Your task to perform on an android device: Toggle the flashlight Image 0: 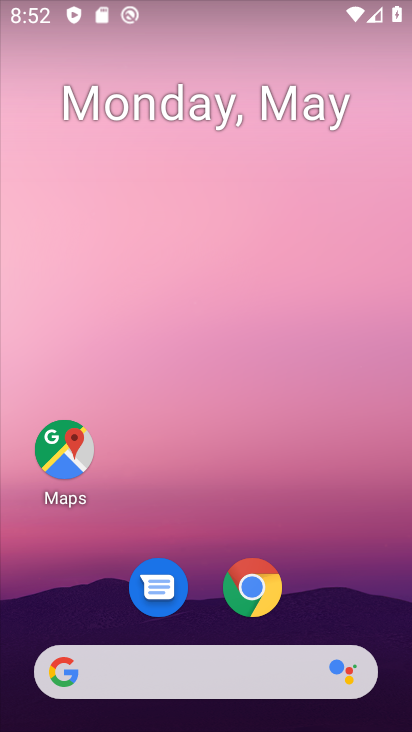
Step 0: drag from (217, 639) to (70, 22)
Your task to perform on an android device: Toggle the flashlight Image 1: 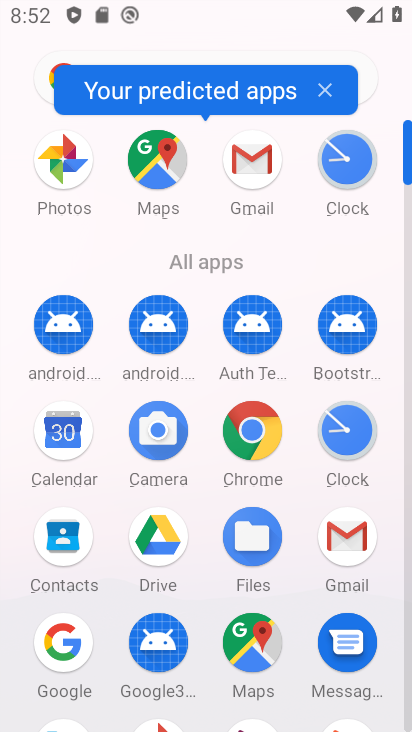
Step 1: drag from (204, 612) to (158, 93)
Your task to perform on an android device: Toggle the flashlight Image 2: 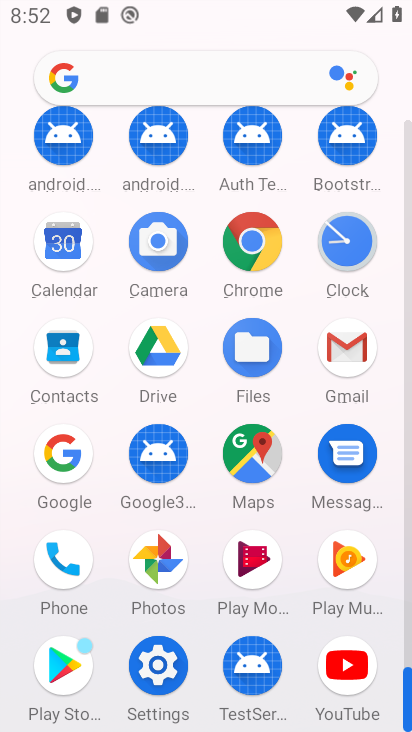
Step 2: click (180, 661)
Your task to perform on an android device: Toggle the flashlight Image 3: 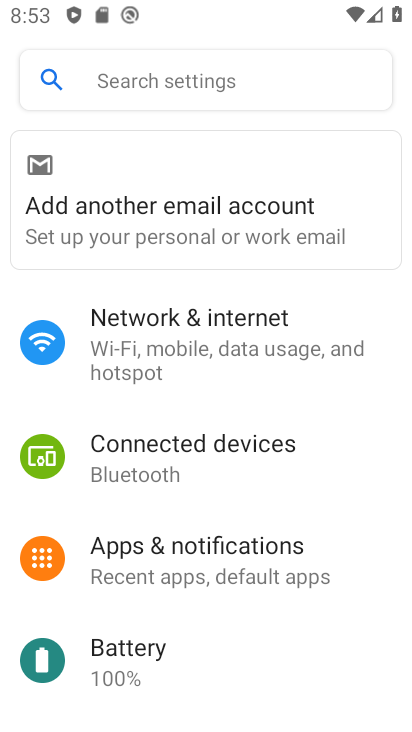
Step 3: task complete